Your task to perform on an android device: Open Chrome and go to the settings page Image 0: 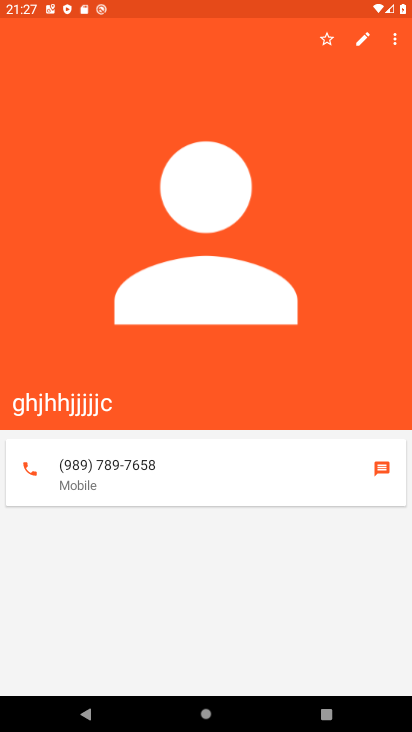
Step 0: press home button
Your task to perform on an android device: Open Chrome and go to the settings page Image 1: 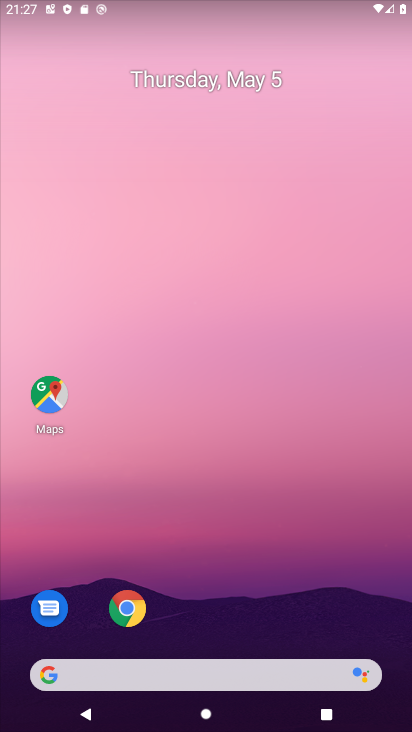
Step 1: drag from (230, 656) to (182, 5)
Your task to perform on an android device: Open Chrome and go to the settings page Image 2: 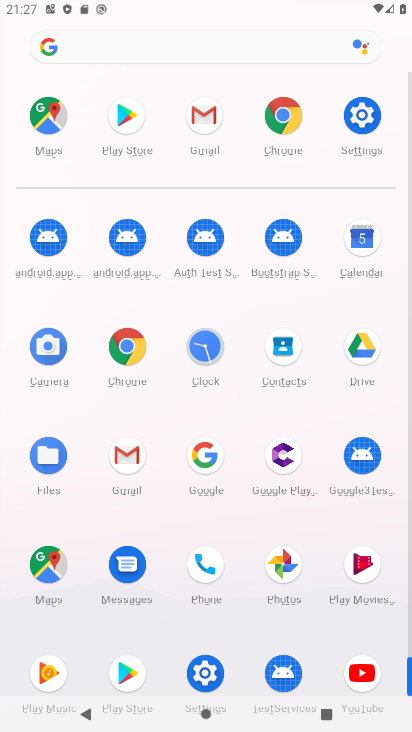
Step 2: click (128, 346)
Your task to perform on an android device: Open Chrome and go to the settings page Image 3: 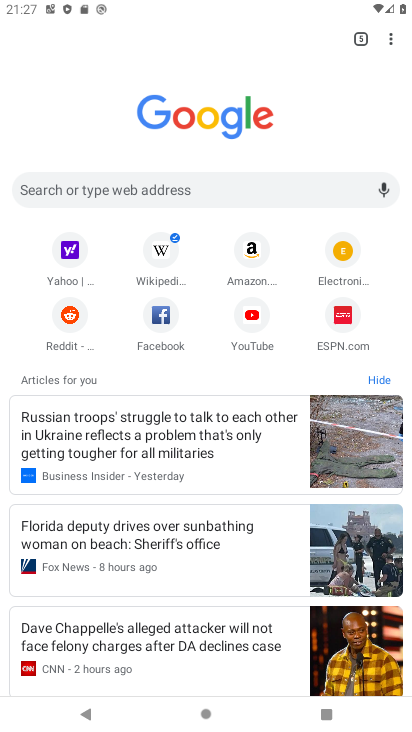
Step 3: click (394, 40)
Your task to perform on an android device: Open Chrome and go to the settings page Image 4: 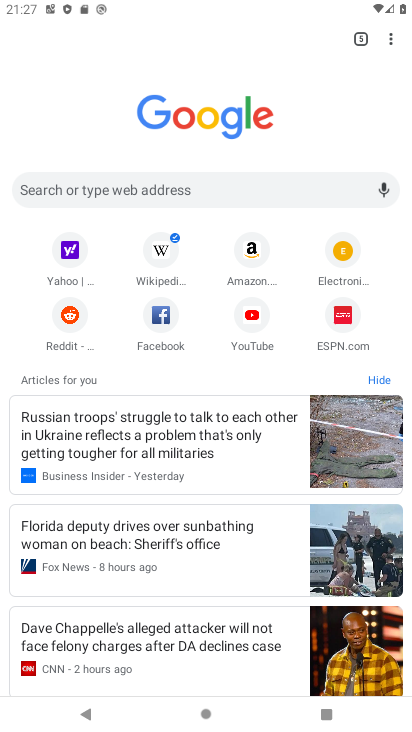
Step 4: click (391, 32)
Your task to perform on an android device: Open Chrome and go to the settings page Image 5: 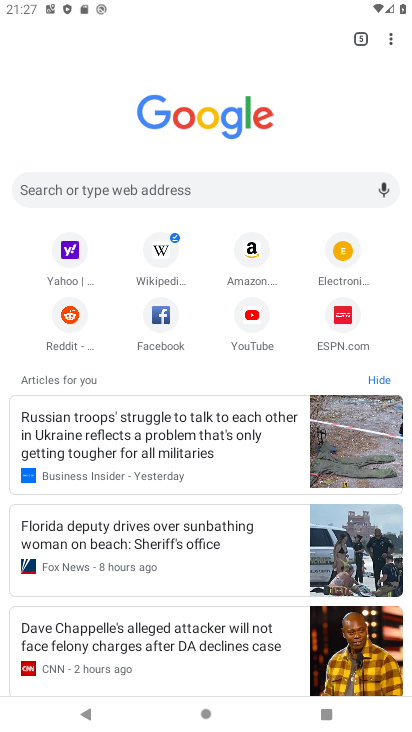
Step 5: click (389, 39)
Your task to perform on an android device: Open Chrome and go to the settings page Image 6: 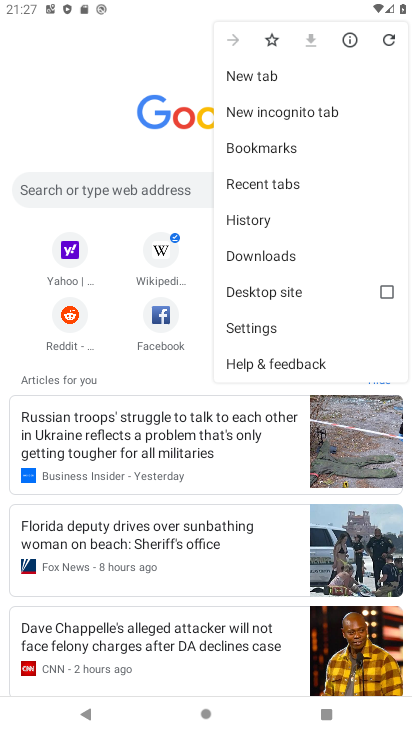
Step 6: click (253, 332)
Your task to perform on an android device: Open Chrome and go to the settings page Image 7: 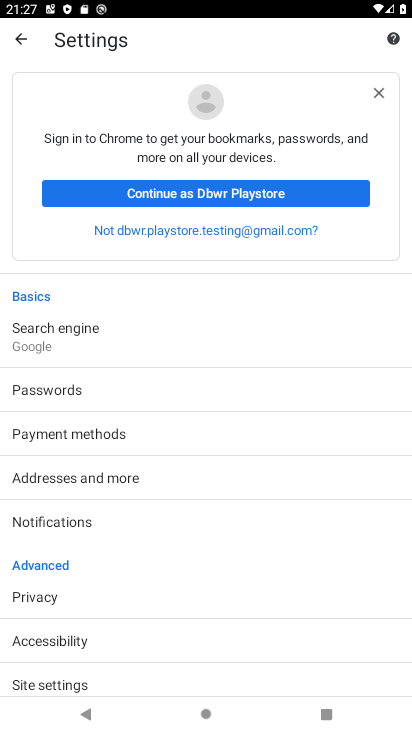
Step 7: task complete